Your task to perform on an android device: change keyboard looks Image 0: 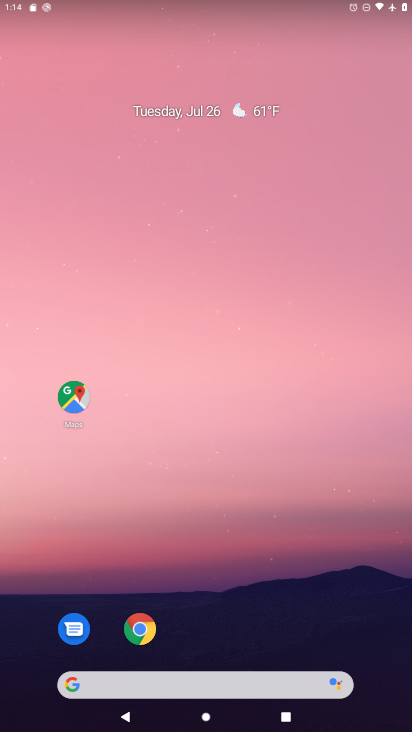
Step 0: drag from (217, 678) to (245, 703)
Your task to perform on an android device: change keyboard looks Image 1: 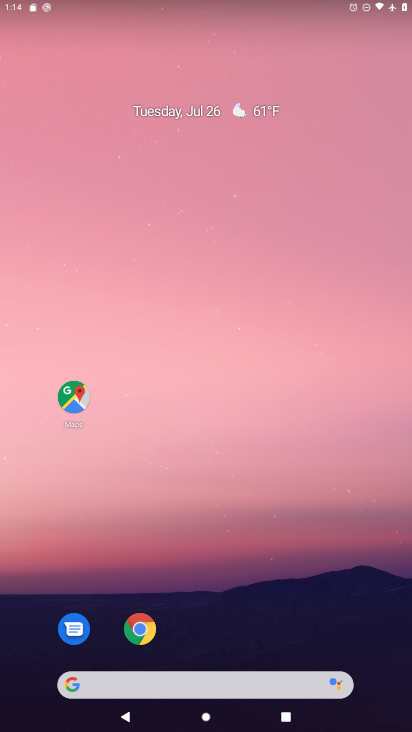
Step 1: drag from (238, 641) to (213, 158)
Your task to perform on an android device: change keyboard looks Image 2: 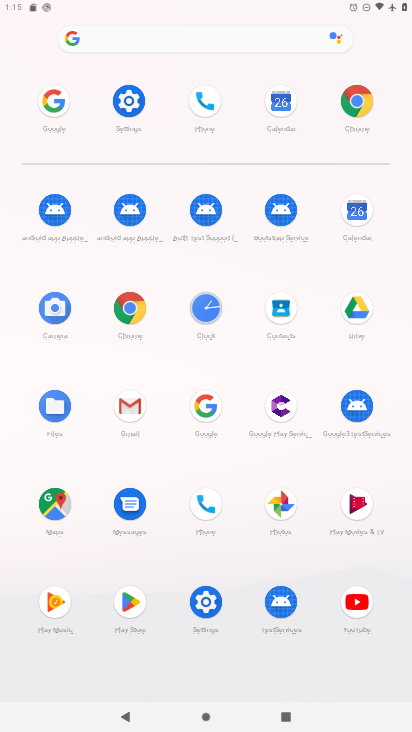
Step 2: click (119, 99)
Your task to perform on an android device: change keyboard looks Image 3: 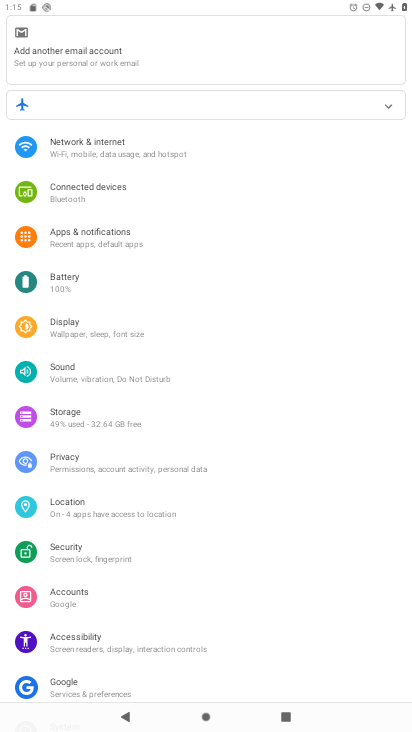
Step 3: drag from (76, 609) to (96, 273)
Your task to perform on an android device: change keyboard looks Image 4: 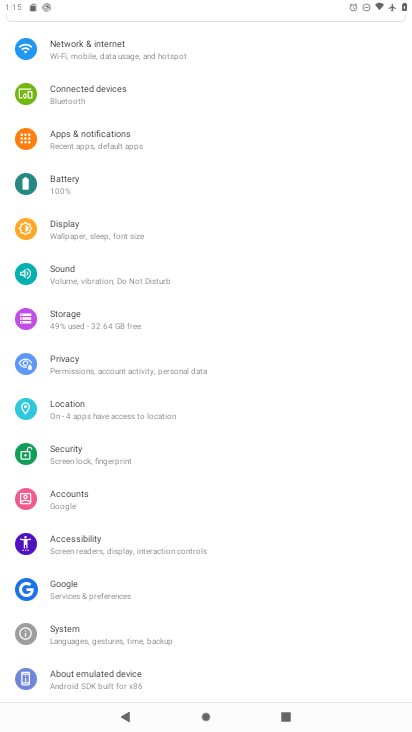
Step 4: click (71, 629)
Your task to perform on an android device: change keyboard looks Image 5: 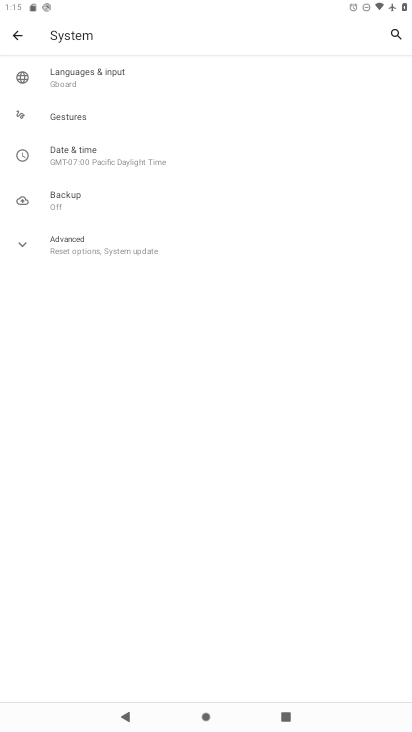
Step 5: click (57, 68)
Your task to perform on an android device: change keyboard looks Image 6: 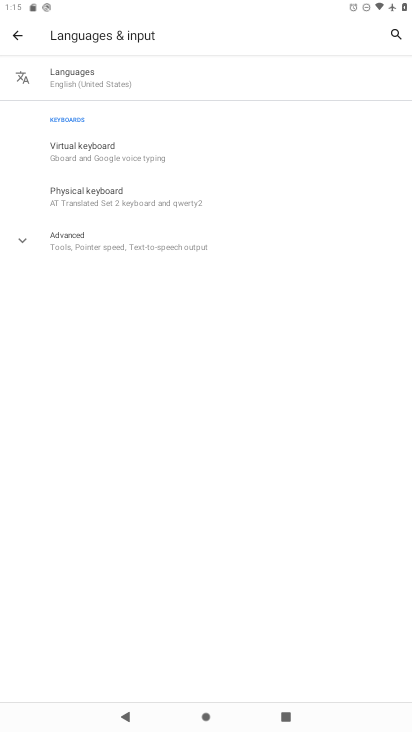
Step 6: click (75, 159)
Your task to perform on an android device: change keyboard looks Image 7: 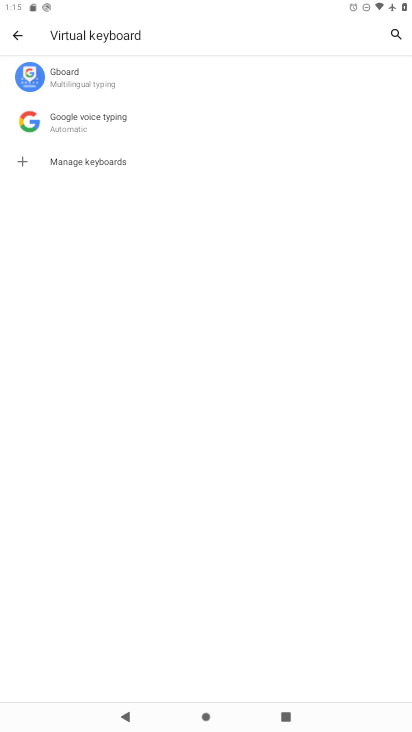
Step 7: click (48, 67)
Your task to perform on an android device: change keyboard looks Image 8: 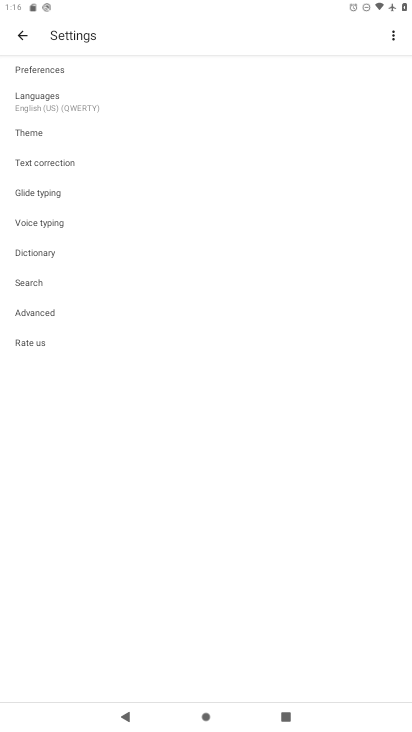
Step 8: click (32, 136)
Your task to perform on an android device: change keyboard looks Image 9: 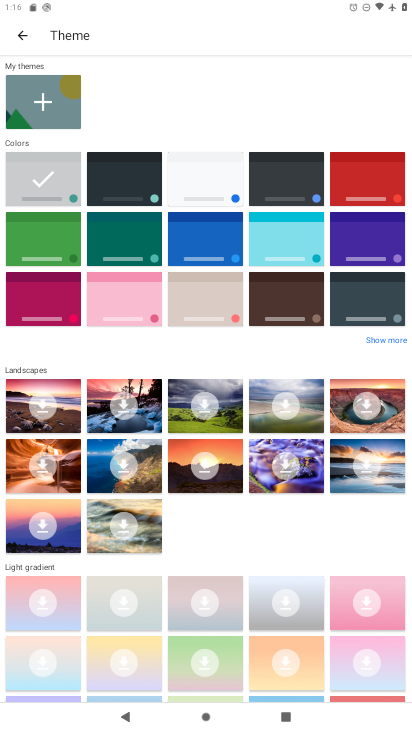
Step 9: click (129, 172)
Your task to perform on an android device: change keyboard looks Image 10: 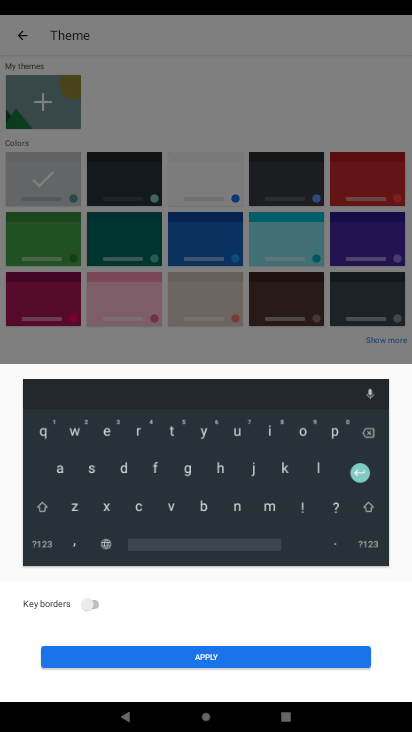
Step 10: click (226, 663)
Your task to perform on an android device: change keyboard looks Image 11: 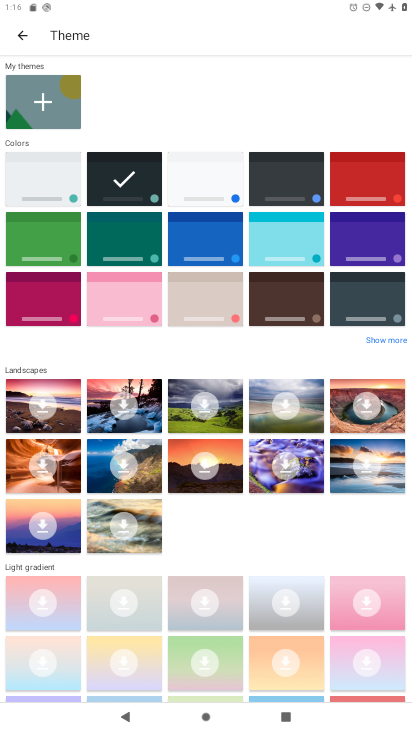
Step 11: click (169, 177)
Your task to perform on an android device: change keyboard looks Image 12: 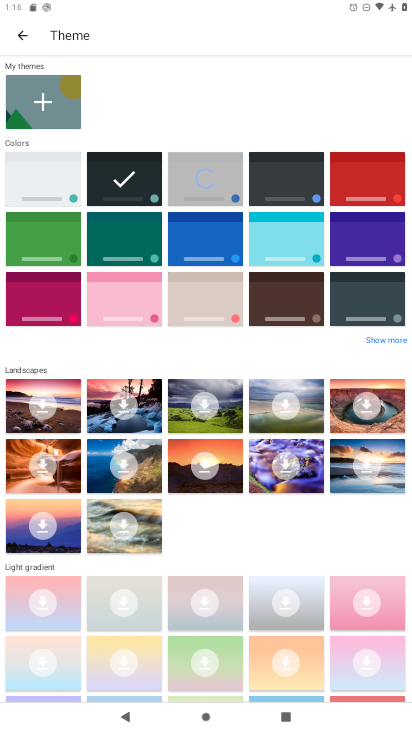
Step 12: task complete